Your task to perform on an android device: manage bookmarks in the chrome app Image 0: 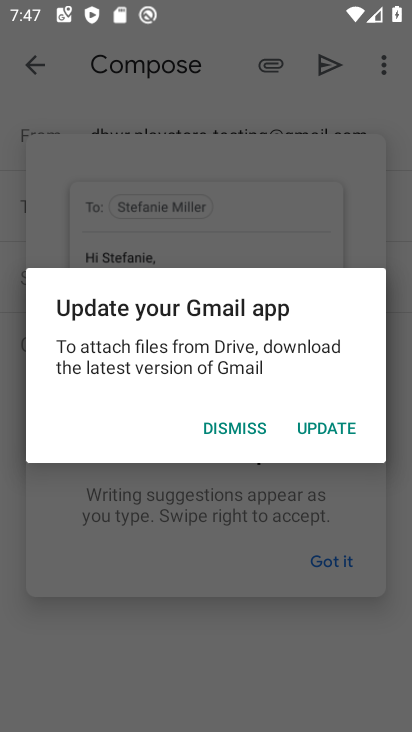
Step 0: press home button
Your task to perform on an android device: manage bookmarks in the chrome app Image 1: 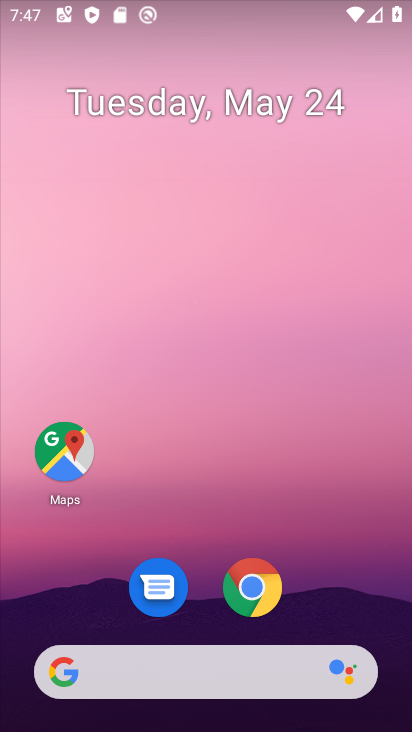
Step 1: click (245, 591)
Your task to perform on an android device: manage bookmarks in the chrome app Image 2: 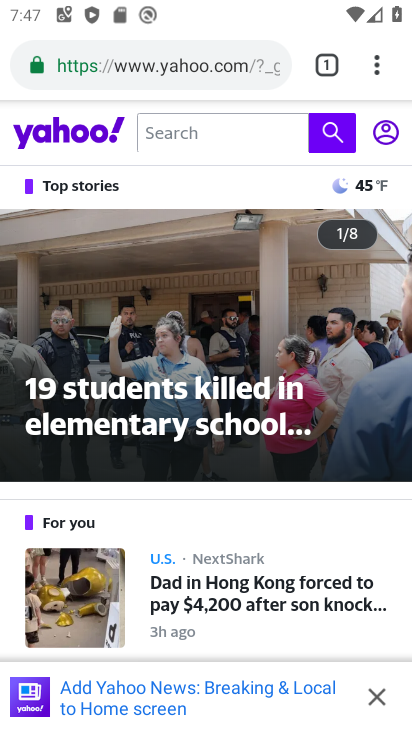
Step 2: click (368, 65)
Your task to perform on an android device: manage bookmarks in the chrome app Image 3: 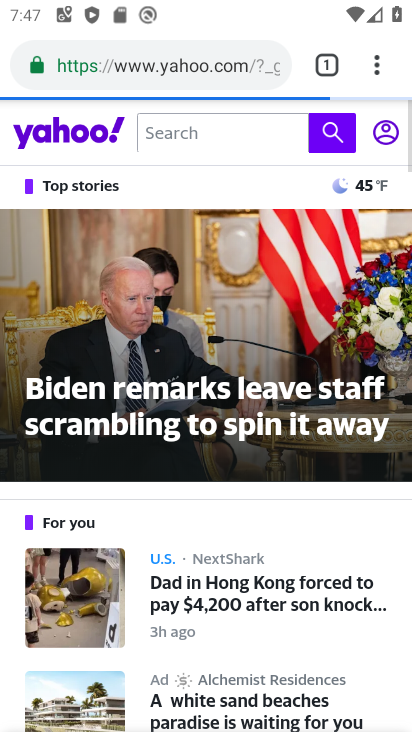
Step 3: click (393, 78)
Your task to perform on an android device: manage bookmarks in the chrome app Image 4: 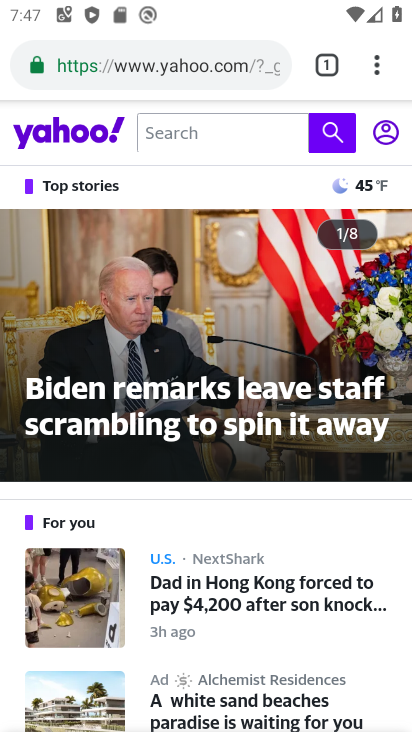
Step 4: click (397, 55)
Your task to perform on an android device: manage bookmarks in the chrome app Image 5: 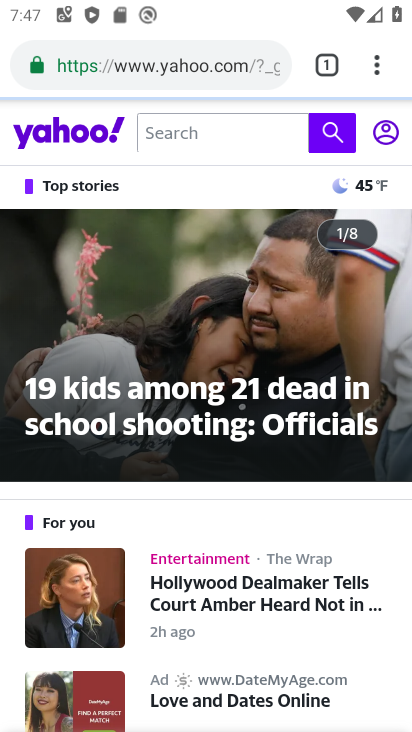
Step 5: click (397, 55)
Your task to perform on an android device: manage bookmarks in the chrome app Image 6: 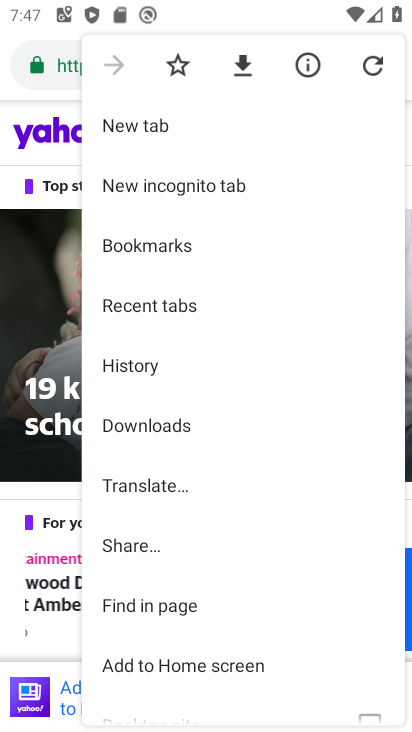
Step 6: click (149, 252)
Your task to perform on an android device: manage bookmarks in the chrome app Image 7: 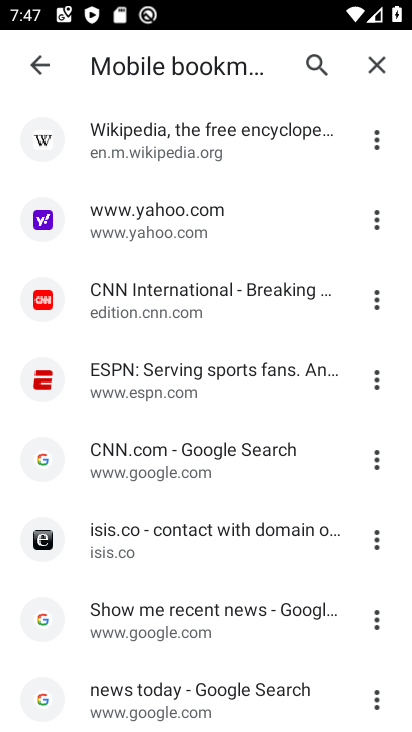
Step 7: click (379, 141)
Your task to perform on an android device: manage bookmarks in the chrome app Image 8: 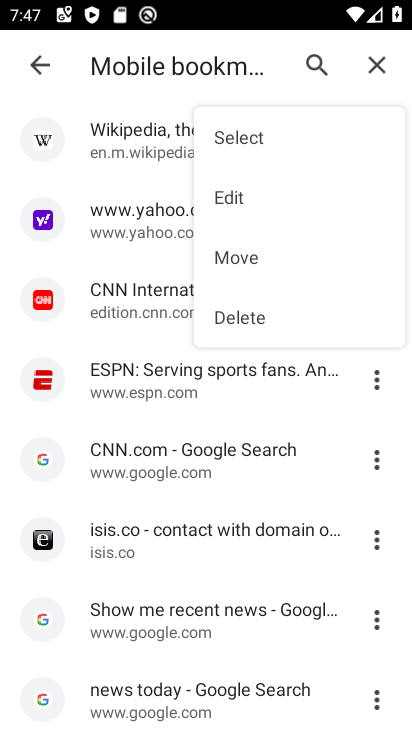
Step 8: click (249, 307)
Your task to perform on an android device: manage bookmarks in the chrome app Image 9: 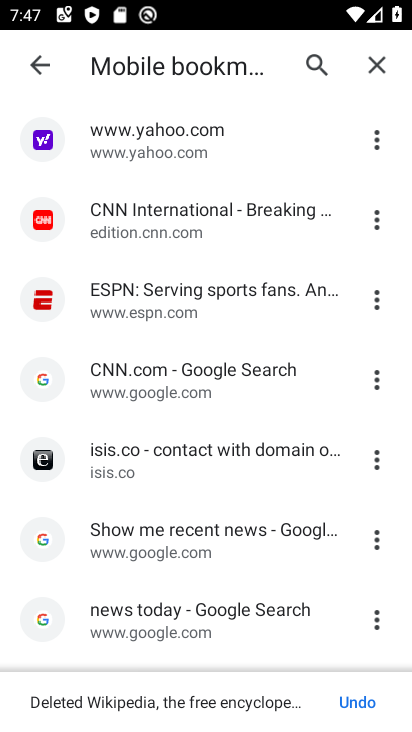
Step 9: task complete